Your task to perform on an android device: stop showing notifications on the lock screen Image 0: 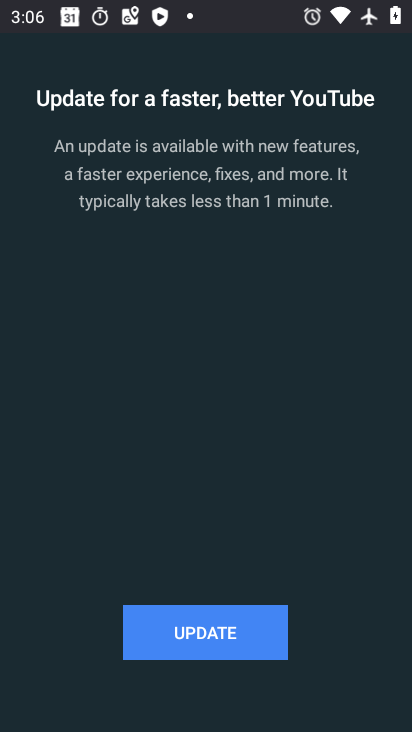
Step 0: press home button
Your task to perform on an android device: stop showing notifications on the lock screen Image 1: 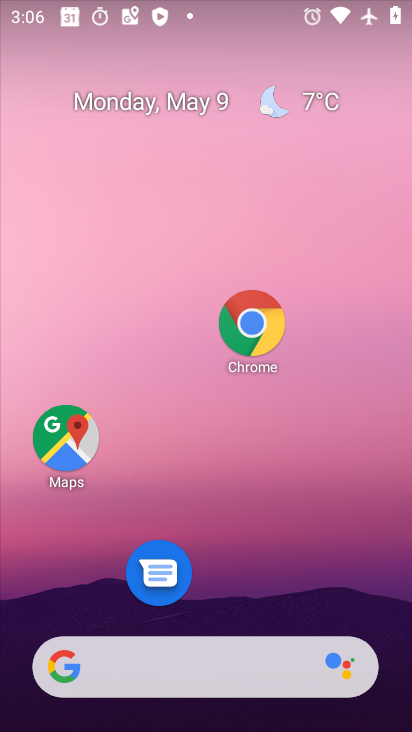
Step 1: drag from (195, 685) to (322, 151)
Your task to perform on an android device: stop showing notifications on the lock screen Image 2: 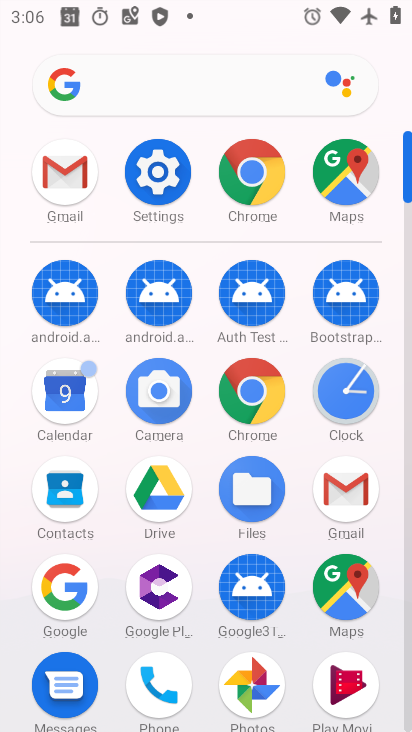
Step 2: click (161, 179)
Your task to perform on an android device: stop showing notifications on the lock screen Image 3: 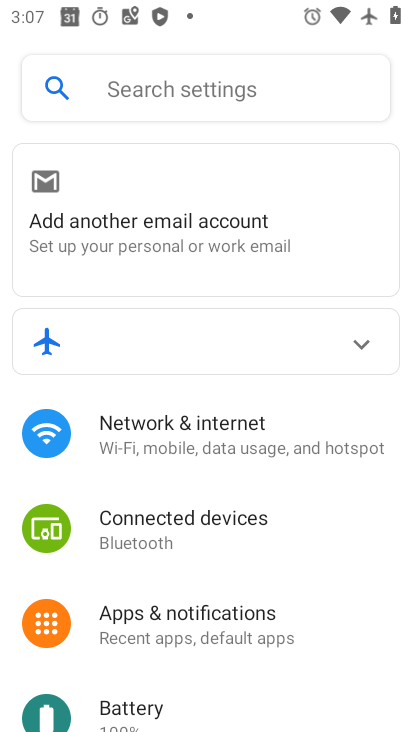
Step 3: click (221, 629)
Your task to perform on an android device: stop showing notifications on the lock screen Image 4: 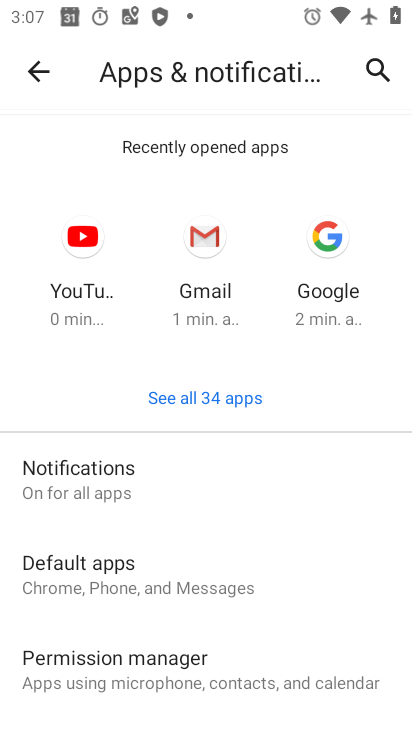
Step 4: click (57, 466)
Your task to perform on an android device: stop showing notifications on the lock screen Image 5: 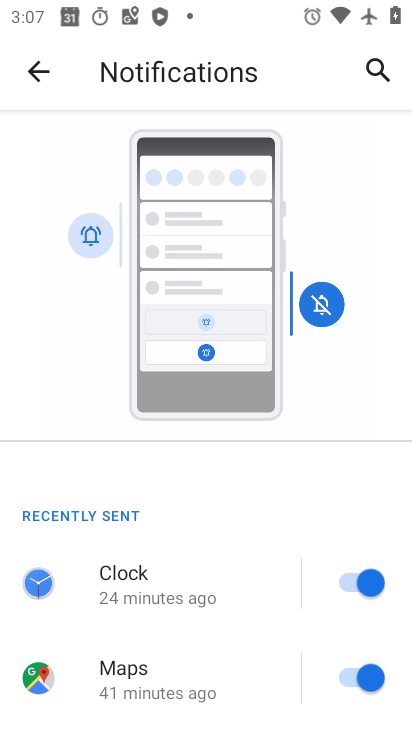
Step 5: drag from (221, 640) to (304, 219)
Your task to perform on an android device: stop showing notifications on the lock screen Image 6: 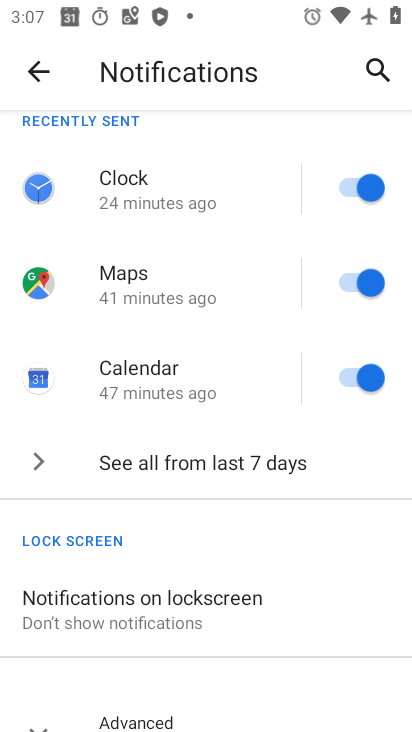
Step 6: click (105, 597)
Your task to perform on an android device: stop showing notifications on the lock screen Image 7: 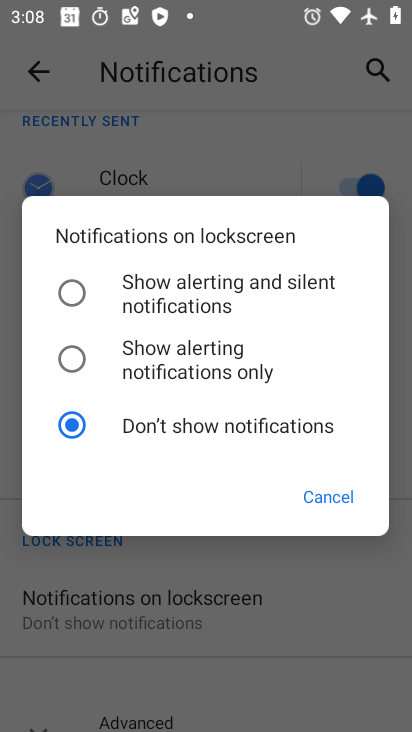
Step 7: task complete